Your task to perform on an android device: Open Maps and search for coffee Image 0: 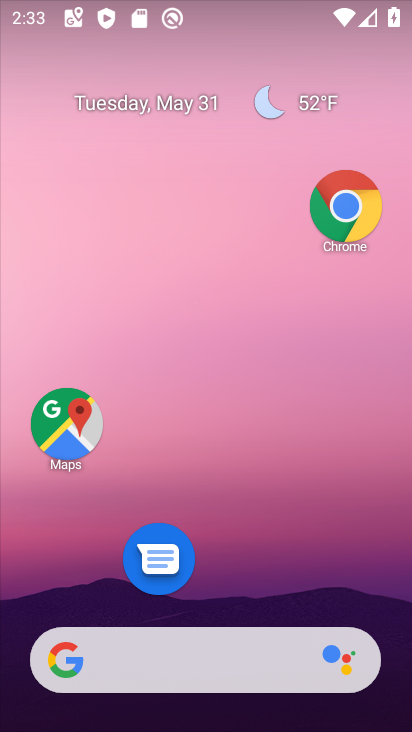
Step 0: drag from (237, 554) to (120, 119)
Your task to perform on an android device: Open Maps and search for coffee Image 1: 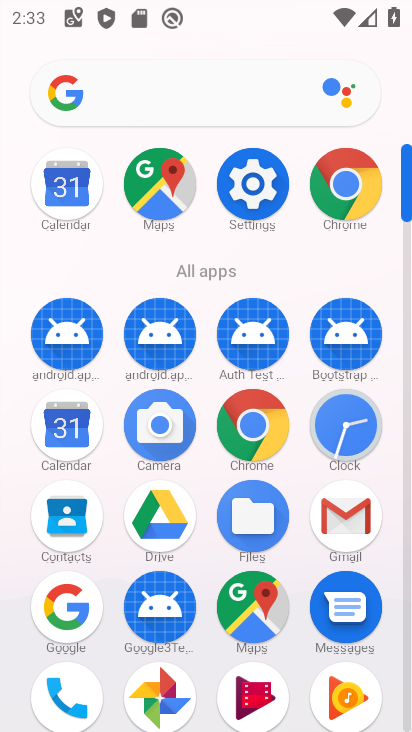
Step 1: click (284, 598)
Your task to perform on an android device: Open Maps and search for coffee Image 2: 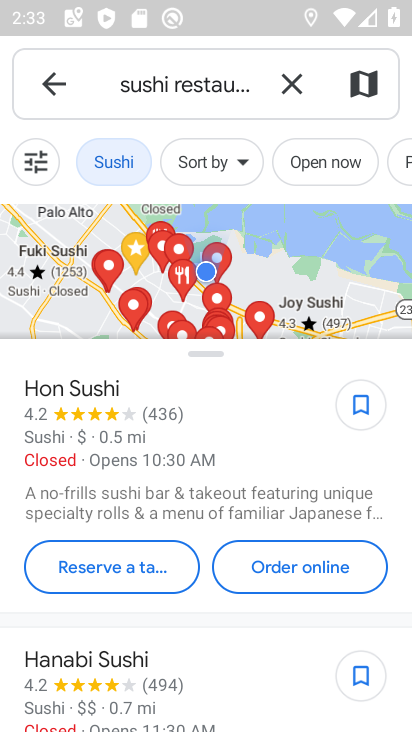
Step 2: click (293, 88)
Your task to perform on an android device: Open Maps and search for coffee Image 3: 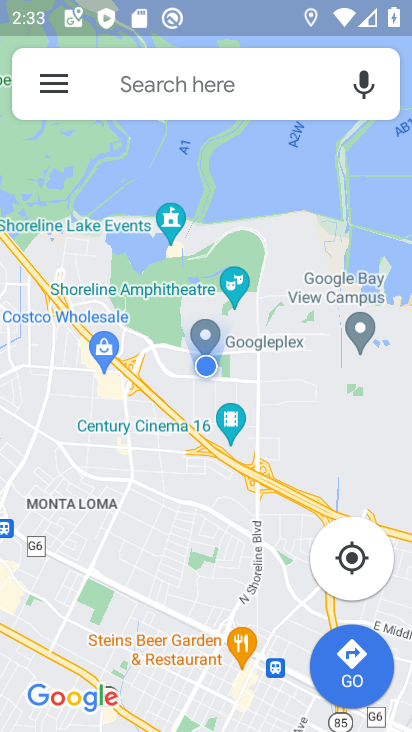
Step 3: click (226, 96)
Your task to perform on an android device: Open Maps and search for coffee Image 4: 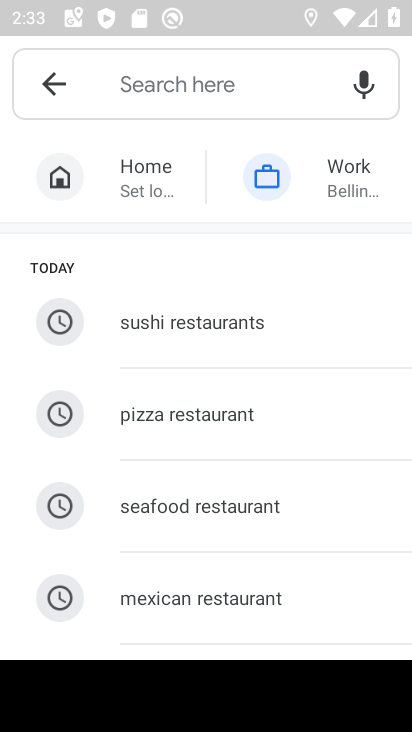
Step 4: drag from (229, 519) to (163, 176)
Your task to perform on an android device: Open Maps and search for coffee Image 5: 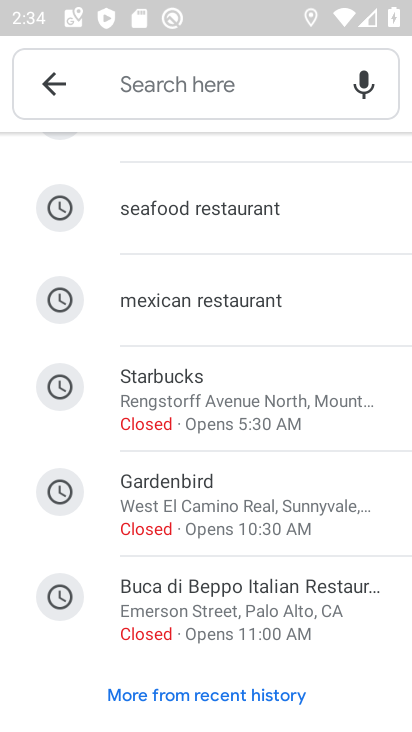
Step 5: click (258, 92)
Your task to perform on an android device: Open Maps and search for coffee Image 6: 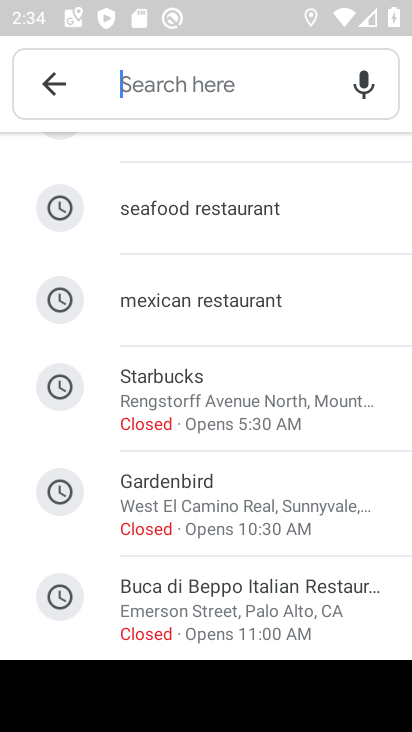
Step 6: type "coffee"
Your task to perform on an android device: Open Maps and search for coffee Image 7: 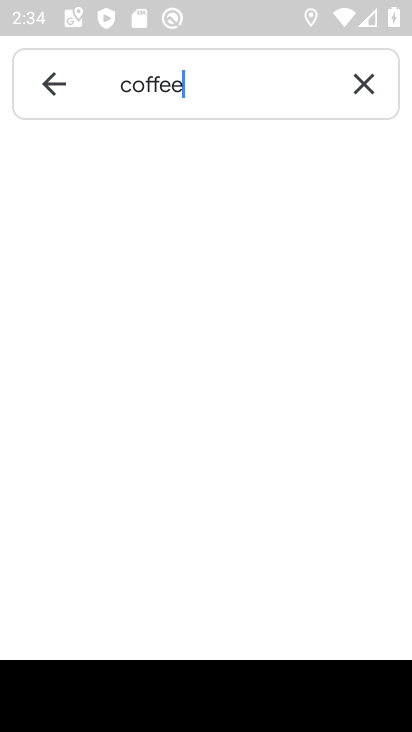
Step 7: type ""
Your task to perform on an android device: Open Maps and search for coffee Image 8: 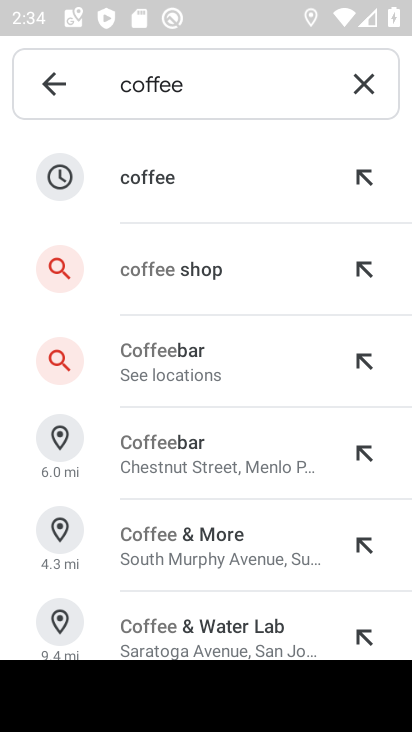
Step 8: click (159, 175)
Your task to perform on an android device: Open Maps and search for coffee Image 9: 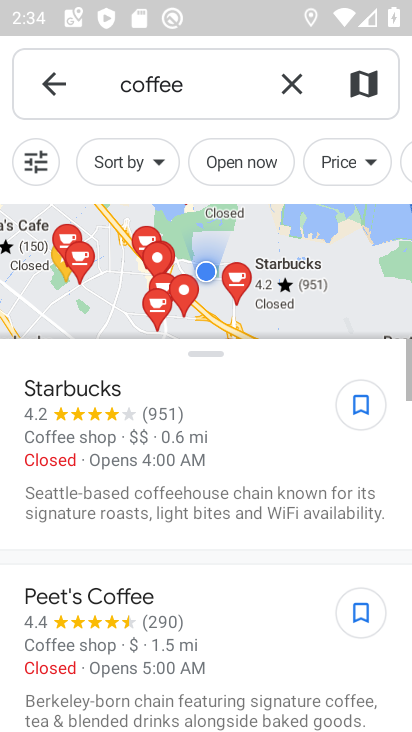
Step 9: task complete